Your task to perform on an android device: turn on the 12-hour format for clock Image 0: 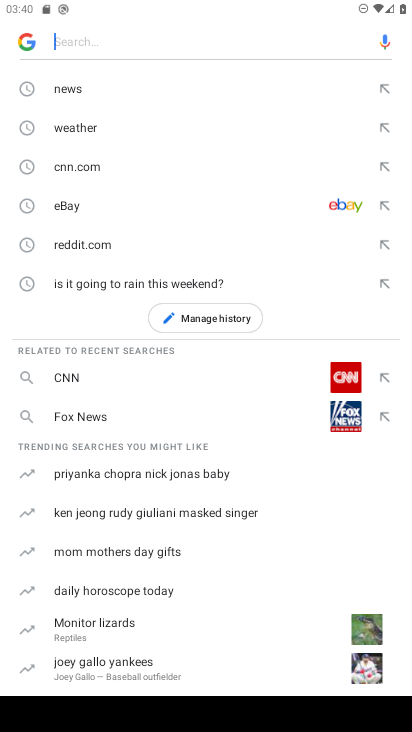
Step 0: press home button
Your task to perform on an android device: turn on the 12-hour format for clock Image 1: 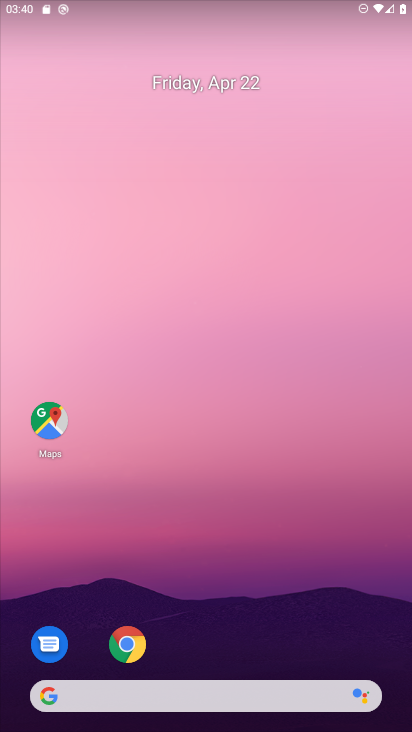
Step 1: drag from (262, 518) to (266, 169)
Your task to perform on an android device: turn on the 12-hour format for clock Image 2: 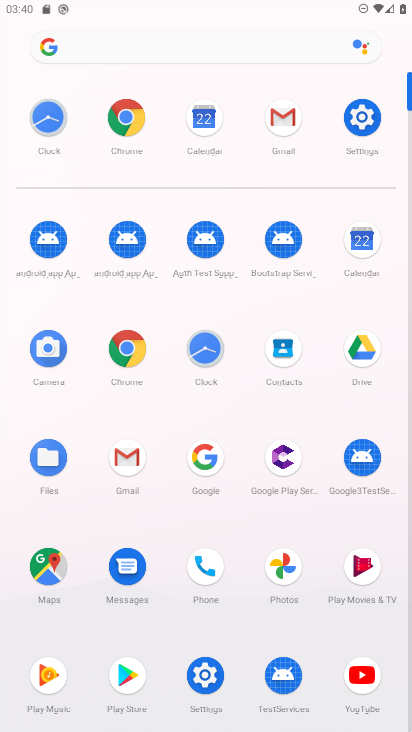
Step 2: click (212, 343)
Your task to perform on an android device: turn on the 12-hour format for clock Image 3: 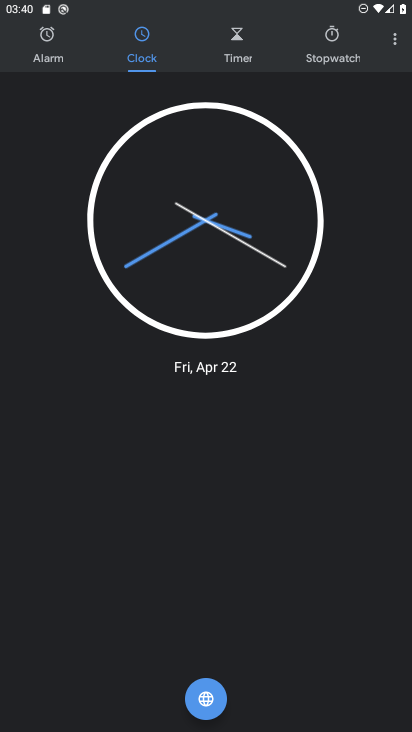
Step 3: drag from (398, 42) to (325, 80)
Your task to perform on an android device: turn on the 12-hour format for clock Image 4: 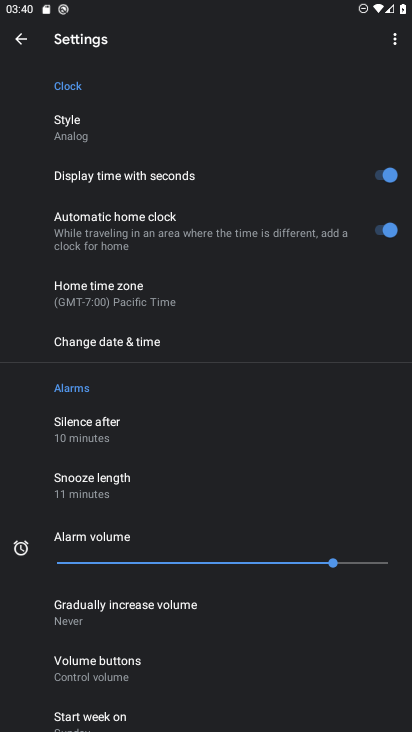
Step 4: click (116, 341)
Your task to perform on an android device: turn on the 12-hour format for clock Image 5: 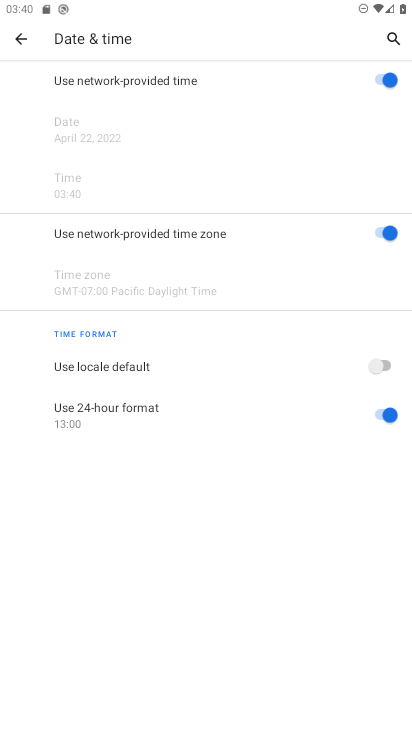
Step 5: click (384, 364)
Your task to perform on an android device: turn on the 12-hour format for clock Image 6: 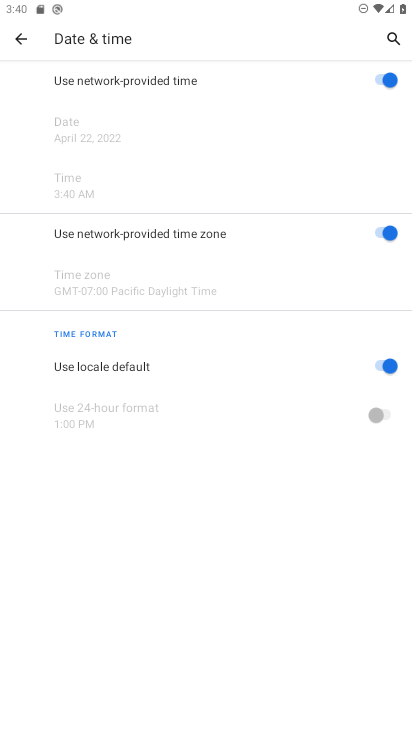
Step 6: task complete